Your task to perform on an android device: toggle wifi Image 0: 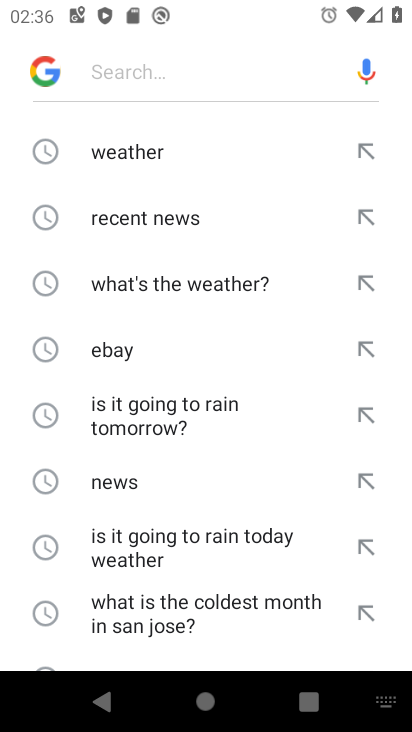
Step 0: press home button
Your task to perform on an android device: toggle wifi Image 1: 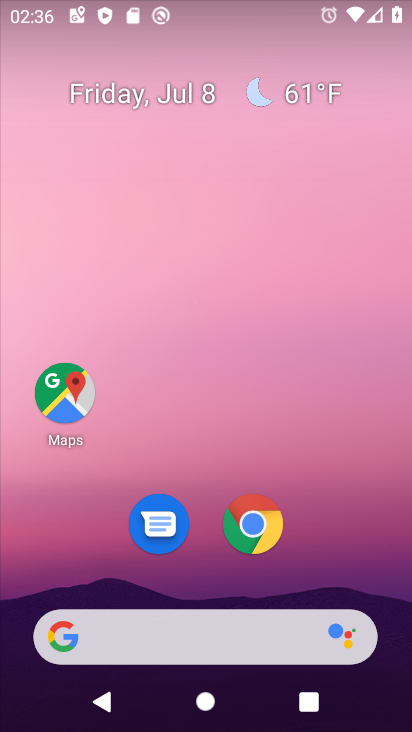
Step 1: drag from (318, 575) to (268, 23)
Your task to perform on an android device: toggle wifi Image 2: 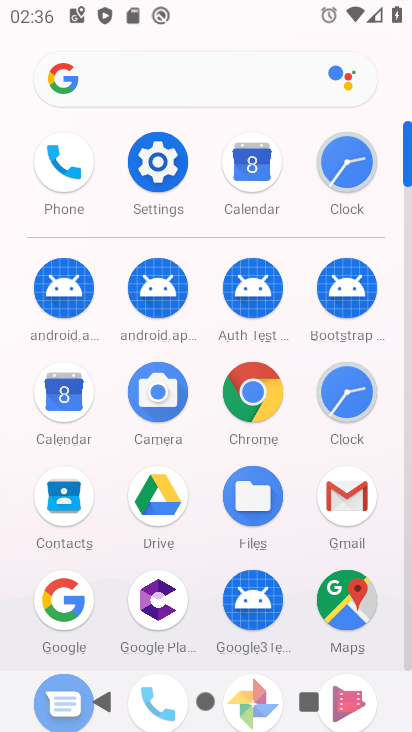
Step 2: click (162, 152)
Your task to perform on an android device: toggle wifi Image 3: 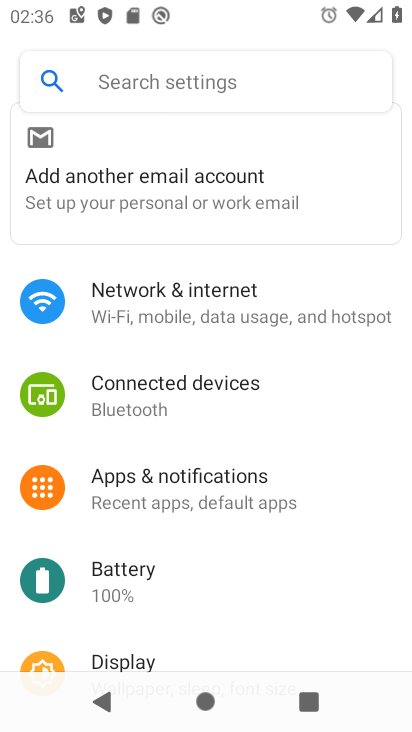
Step 3: click (253, 298)
Your task to perform on an android device: toggle wifi Image 4: 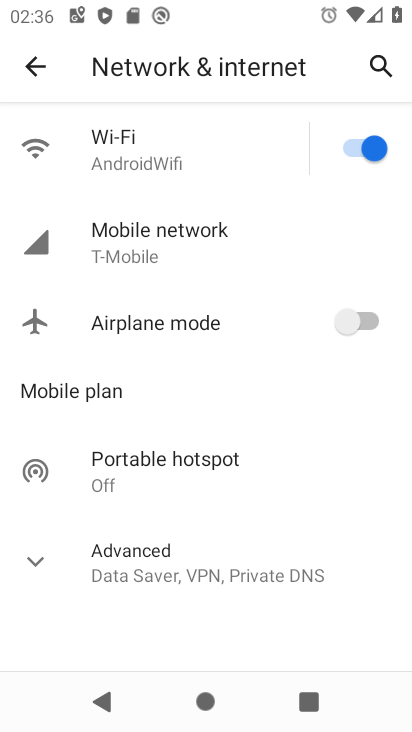
Step 4: click (356, 134)
Your task to perform on an android device: toggle wifi Image 5: 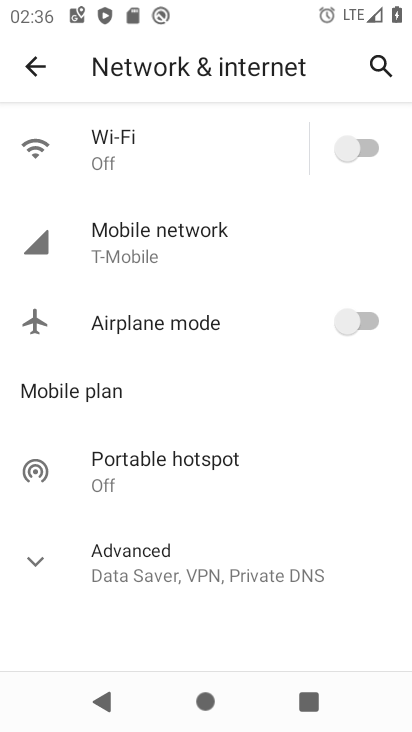
Step 5: task complete